Your task to perform on an android device: Show me productivity apps on the Play Store Image 0: 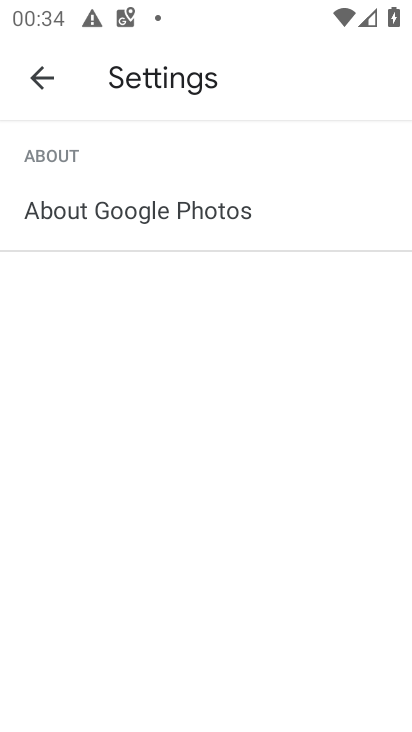
Step 0: press home button
Your task to perform on an android device: Show me productivity apps on the Play Store Image 1: 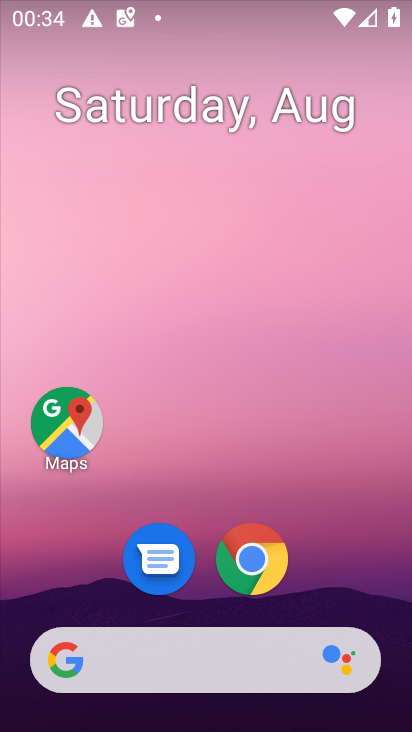
Step 1: drag from (354, 610) to (220, 81)
Your task to perform on an android device: Show me productivity apps on the Play Store Image 2: 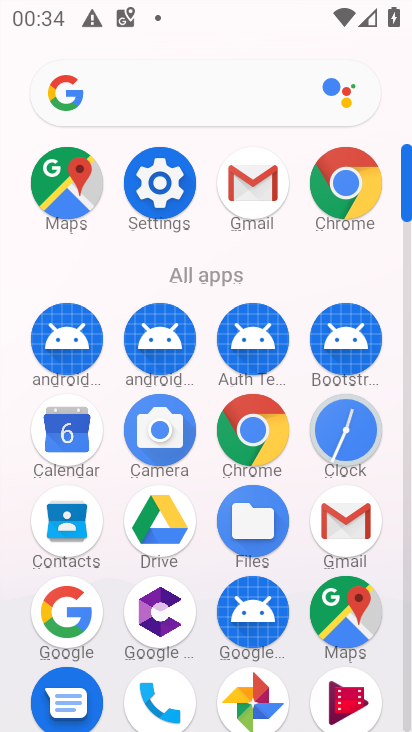
Step 2: click (405, 724)
Your task to perform on an android device: Show me productivity apps on the Play Store Image 3: 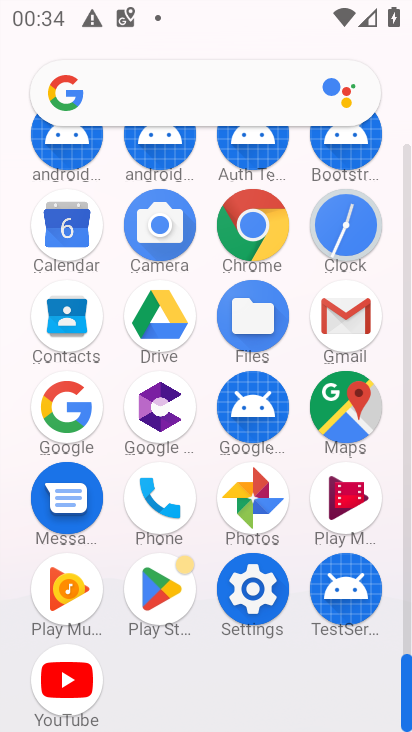
Step 3: click (151, 602)
Your task to perform on an android device: Show me productivity apps on the Play Store Image 4: 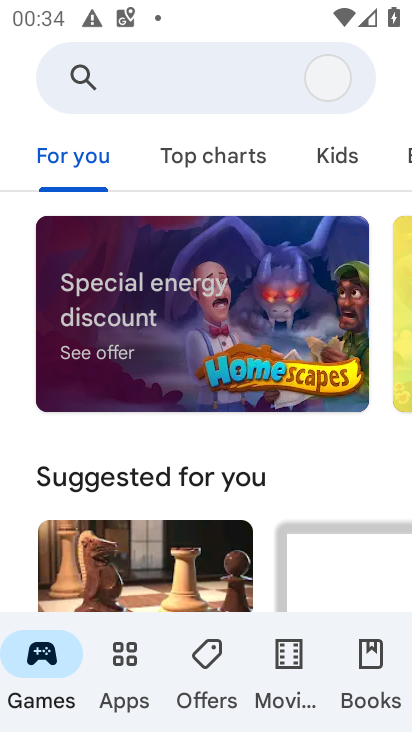
Step 4: click (133, 689)
Your task to perform on an android device: Show me productivity apps on the Play Store Image 5: 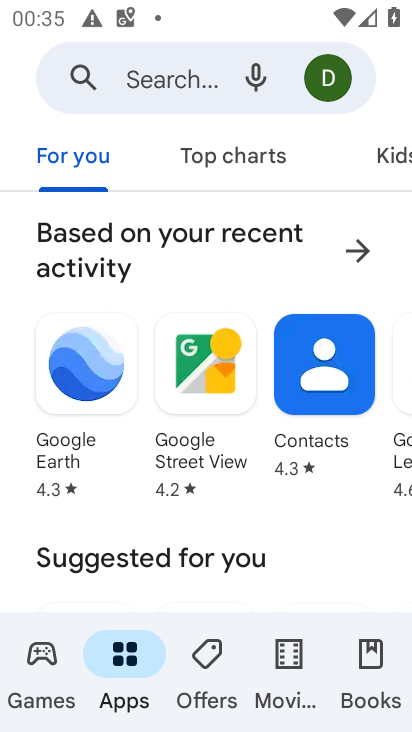
Step 5: drag from (338, 186) to (136, 160)
Your task to perform on an android device: Show me productivity apps on the Play Store Image 6: 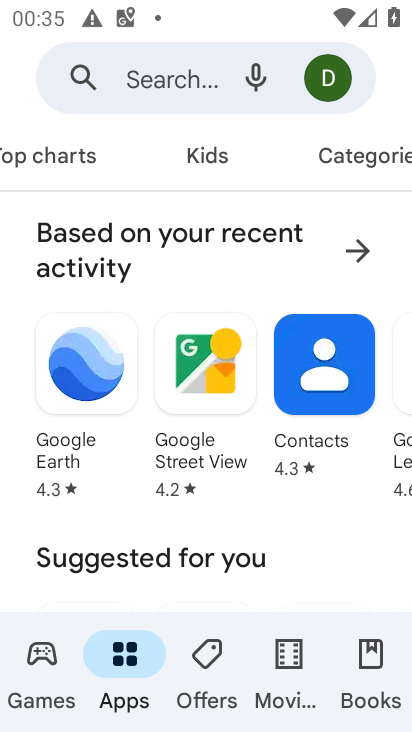
Step 6: click (407, 166)
Your task to perform on an android device: Show me productivity apps on the Play Store Image 7: 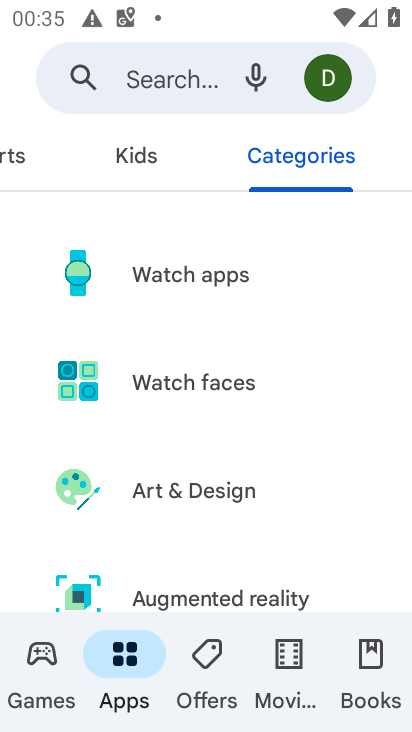
Step 7: drag from (251, 581) to (240, 39)
Your task to perform on an android device: Show me productivity apps on the Play Store Image 8: 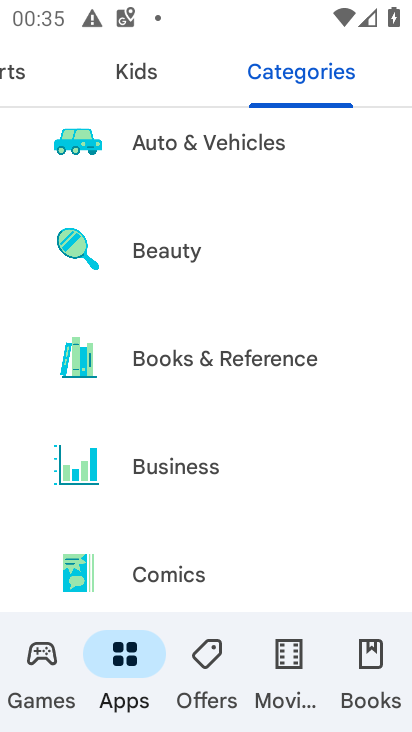
Step 8: drag from (298, 561) to (195, 12)
Your task to perform on an android device: Show me productivity apps on the Play Store Image 9: 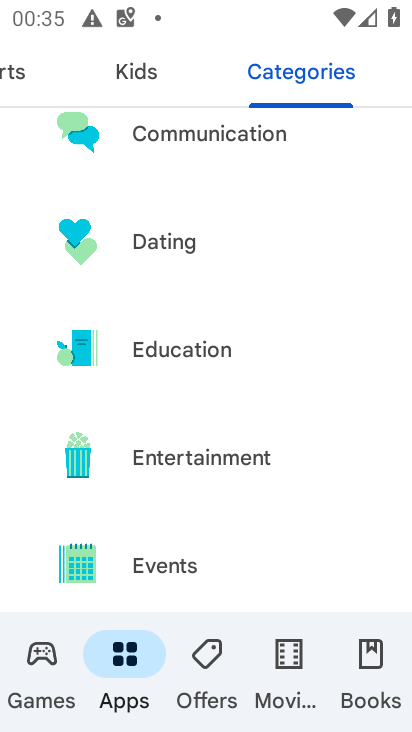
Step 9: drag from (238, 579) to (169, 6)
Your task to perform on an android device: Show me productivity apps on the Play Store Image 10: 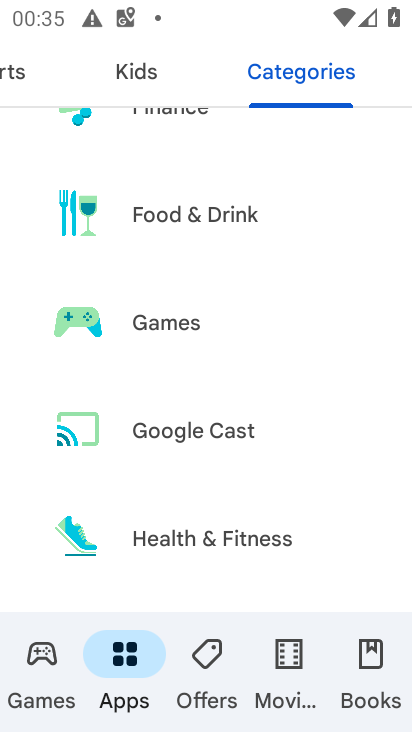
Step 10: drag from (215, 605) to (186, 94)
Your task to perform on an android device: Show me productivity apps on the Play Store Image 11: 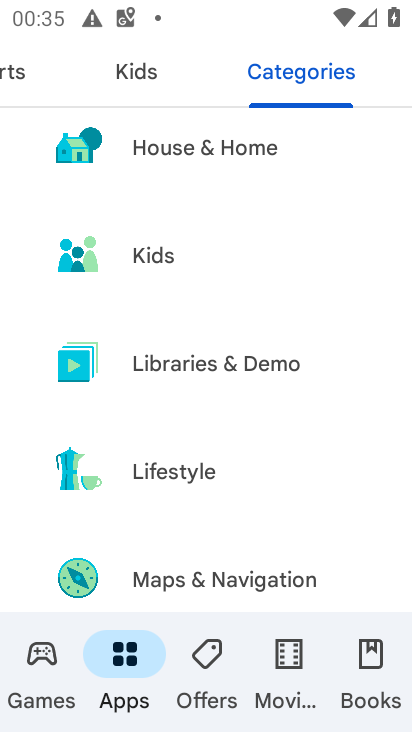
Step 11: drag from (229, 544) to (169, 44)
Your task to perform on an android device: Show me productivity apps on the Play Store Image 12: 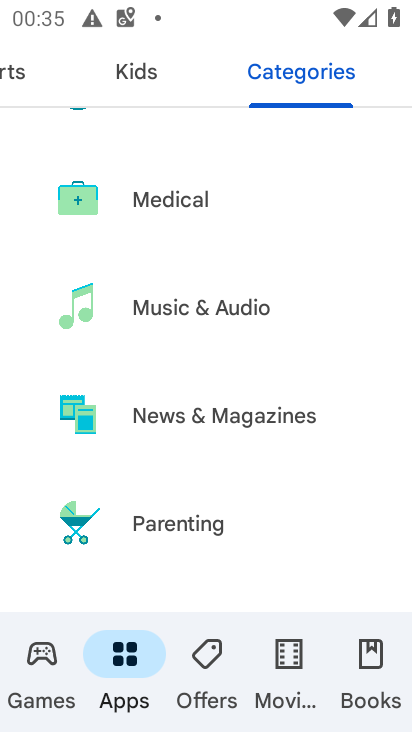
Step 12: drag from (214, 573) to (145, 79)
Your task to perform on an android device: Show me productivity apps on the Play Store Image 13: 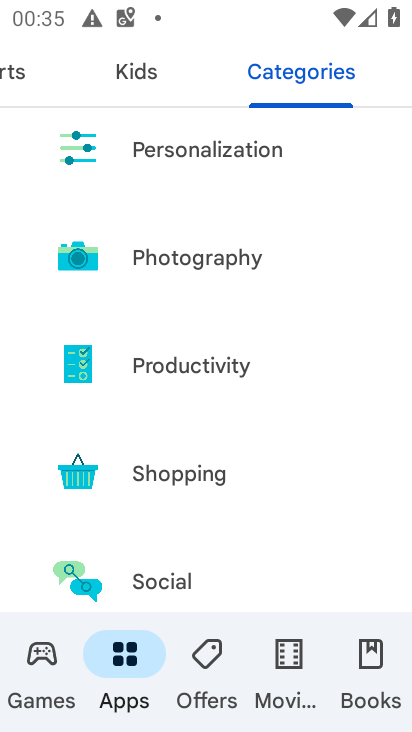
Step 13: click (209, 383)
Your task to perform on an android device: Show me productivity apps on the Play Store Image 14: 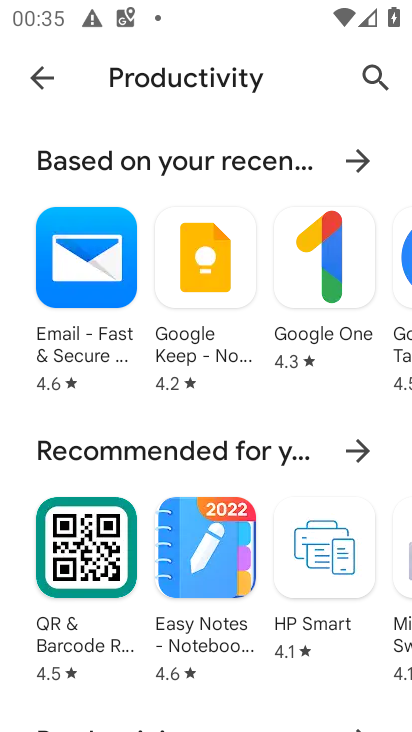
Step 14: task complete